Your task to perform on an android device: Go to eBay Image 0: 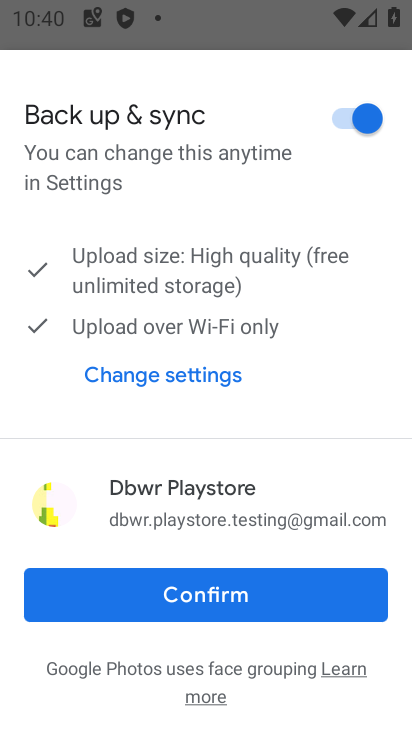
Step 0: press back button
Your task to perform on an android device: Go to eBay Image 1: 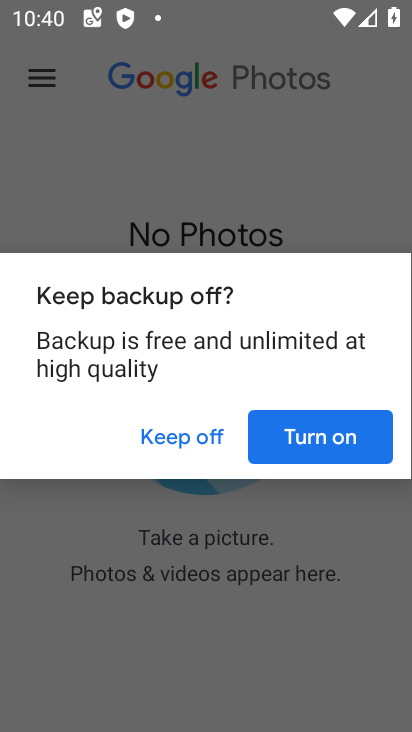
Step 1: press home button
Your task to perform on an android device: Go to eBay Image 2: 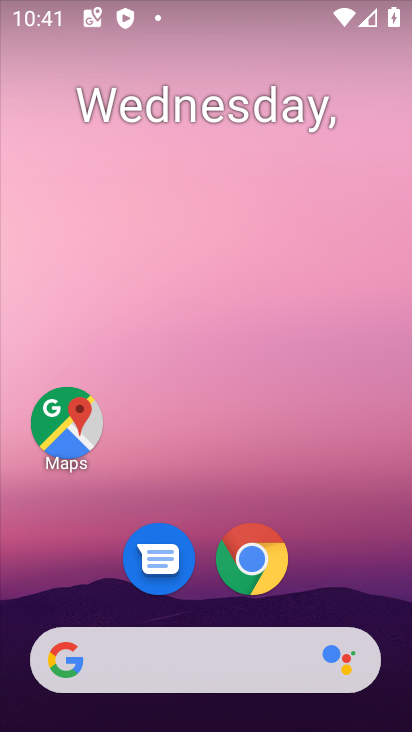
Step 2: click (179, 45)
Your task to perform on an android device: Go to eBay Image 3: 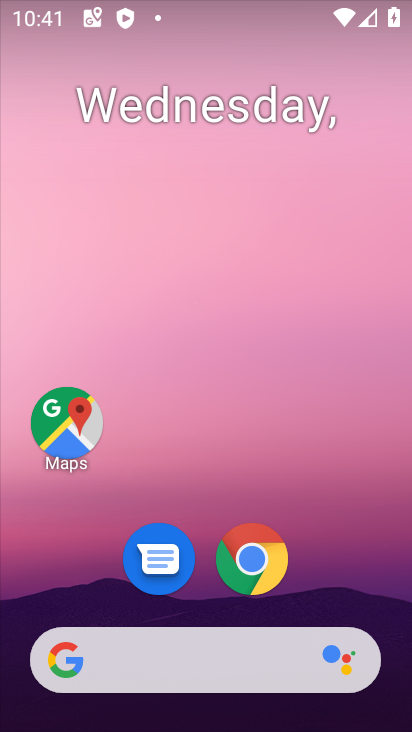
Step 3: click (248, 558)
Your task to perform on an android device: Go to eBay Image 4: 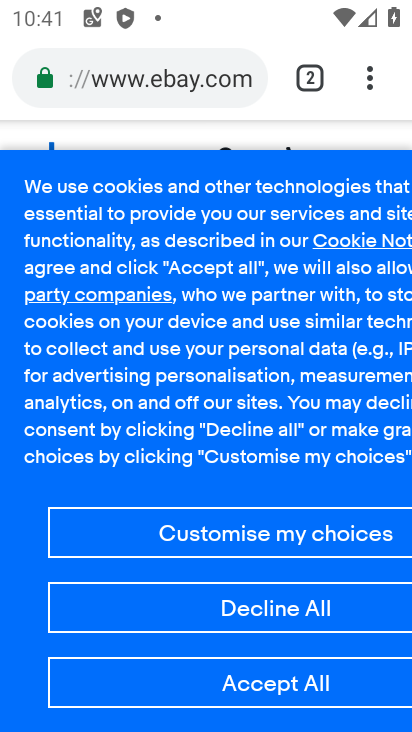
Step 4: task complete